Your task to perform on an android device: turn smart compose on in the gmail app Image 0: 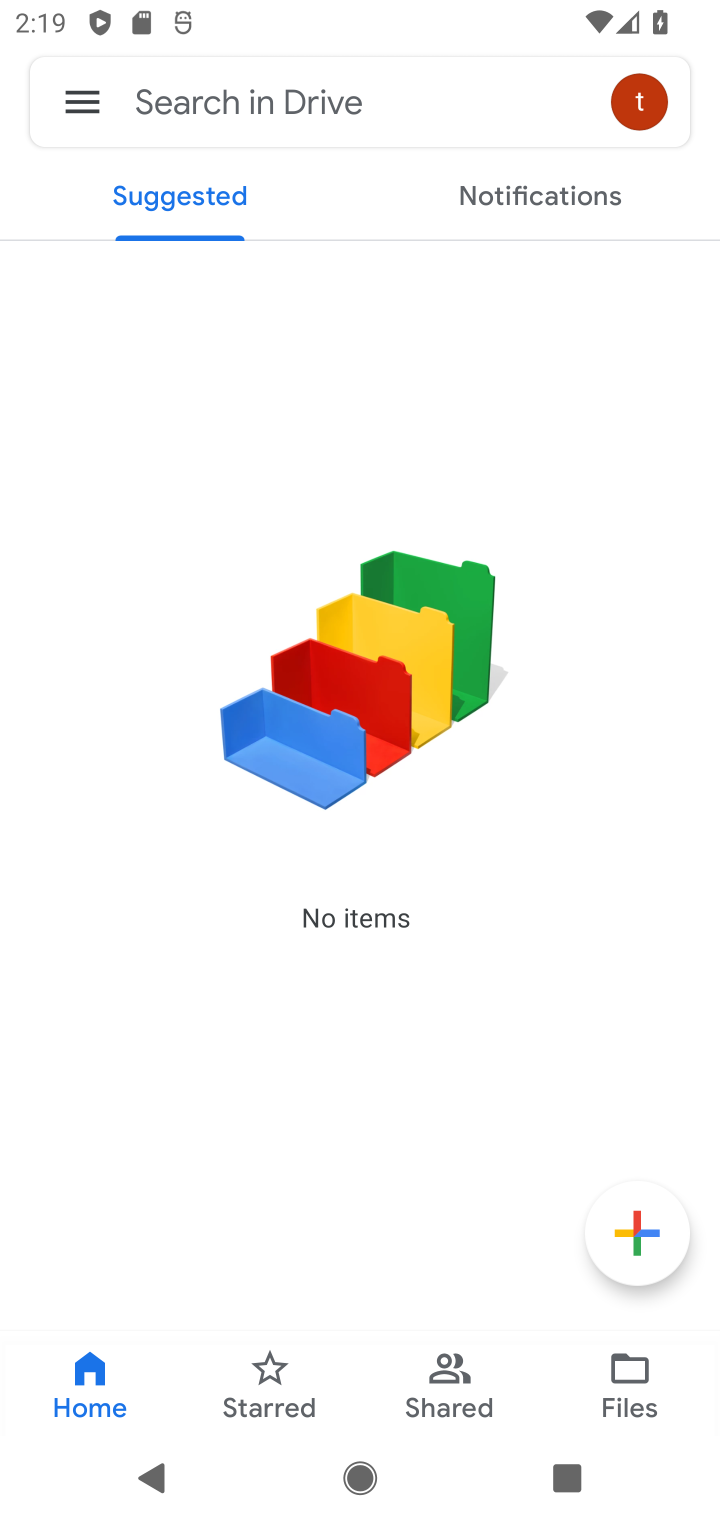
Step 0: press home button
Your task to perform on an android device: turn smart compose on in the gmail app Image 1: 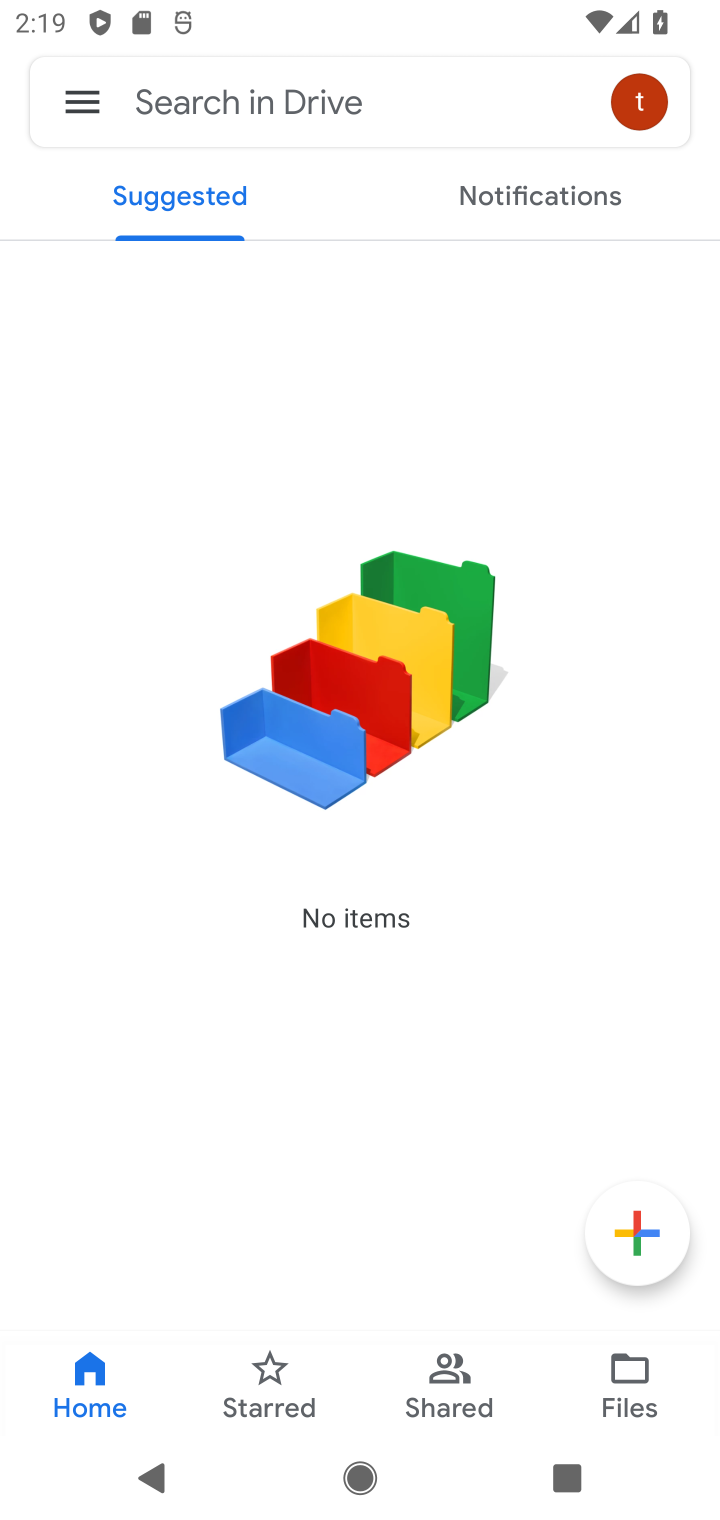
Step 1: drag from (585, 1302) to (346, 146)
Your task to perform on an android device: turn smart compose on in the gmail app Image 2: 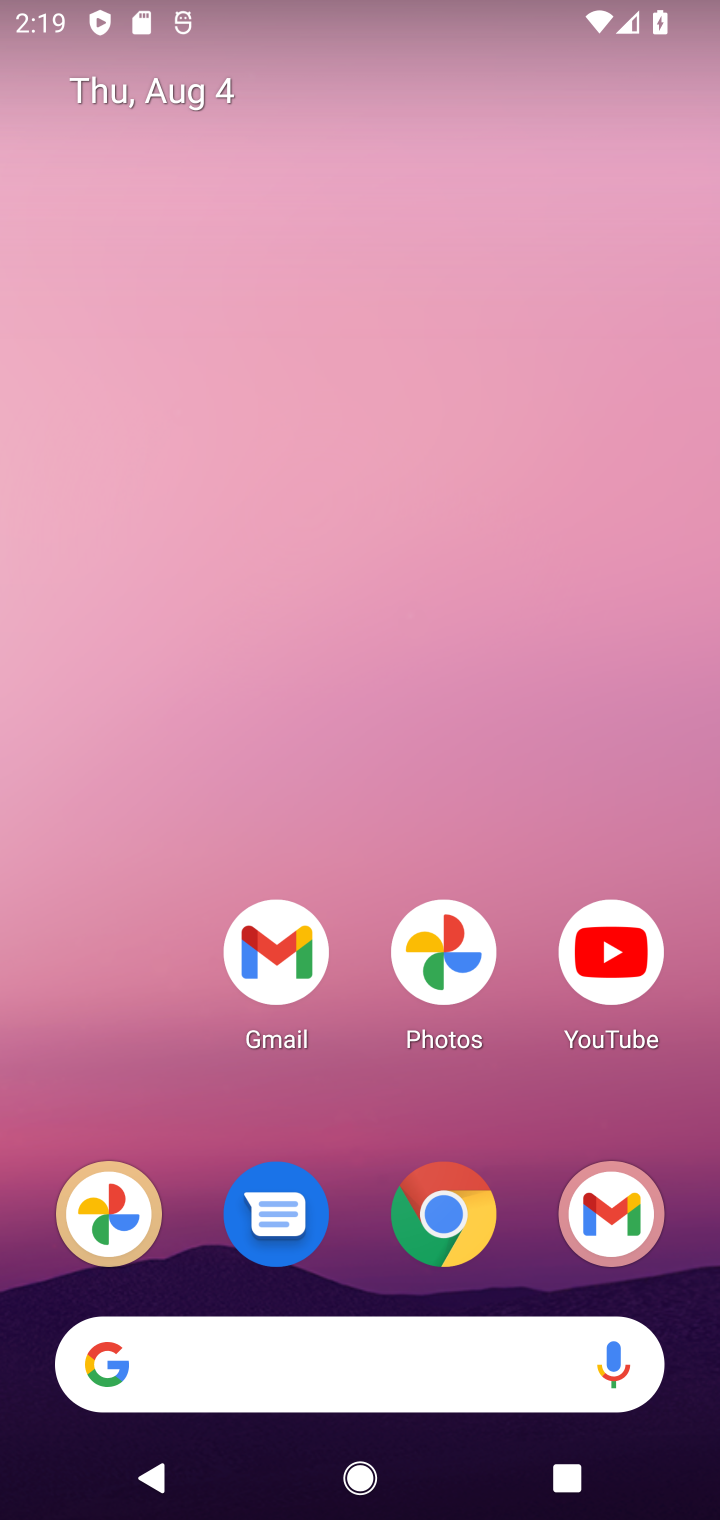
Step 2: drag from (74, 969) to (188, 1)
Your task to perform on an android device: turn smart compose on in the gmail app Image 3: 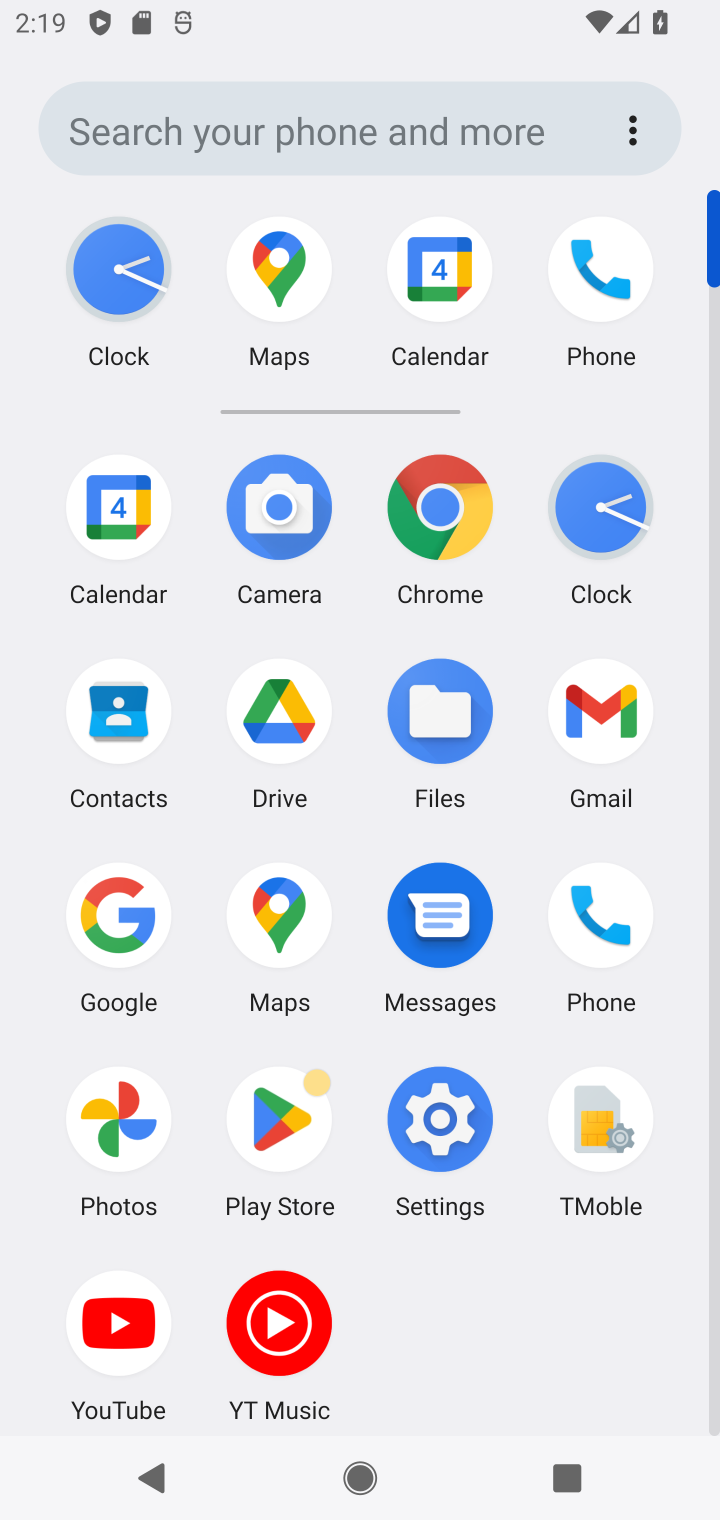
Step 3: click (597, 713)
Your task to perform on an android device: turn smart compose on in the gmail app Image 4: 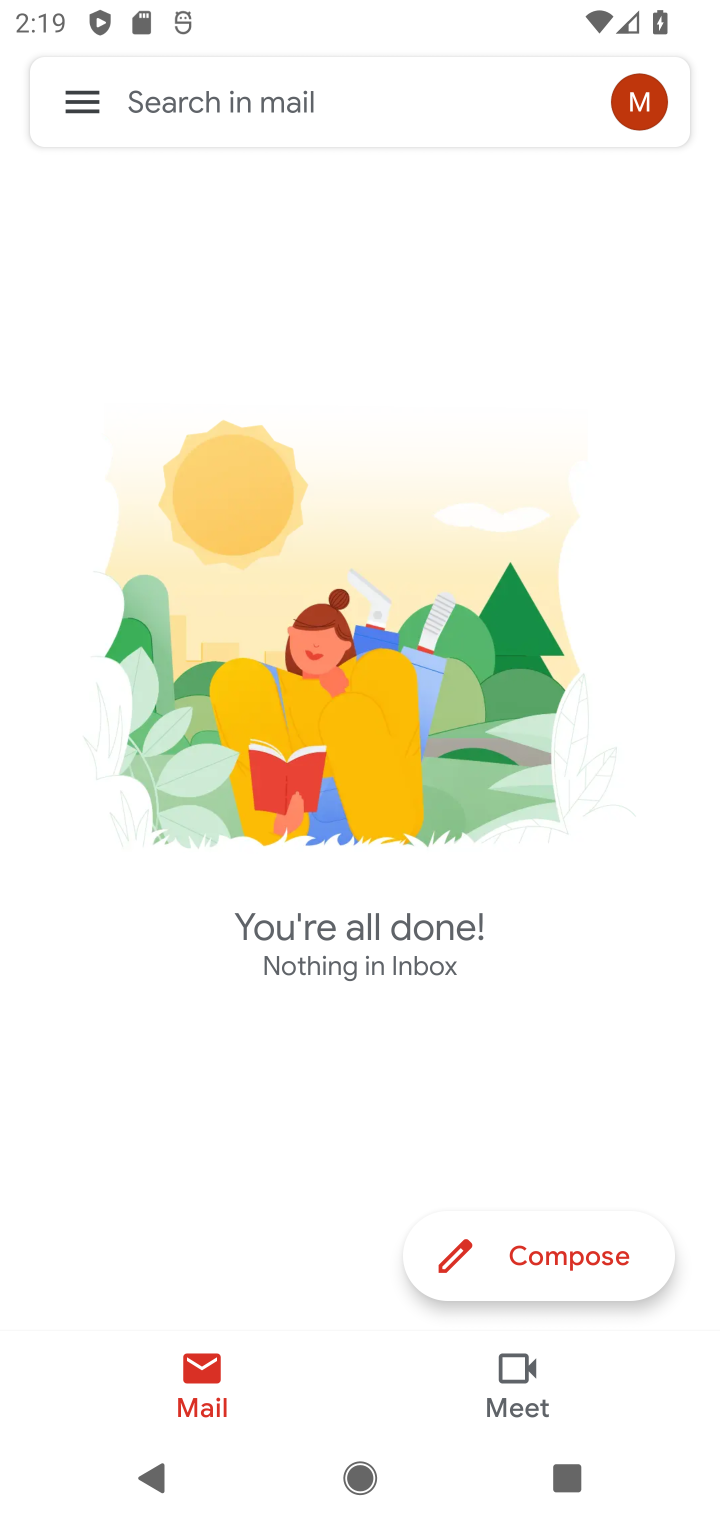
Step 4: click (91, 92)
Your task to perform on an android device: turn smart compose on in the gmail app Image 5: 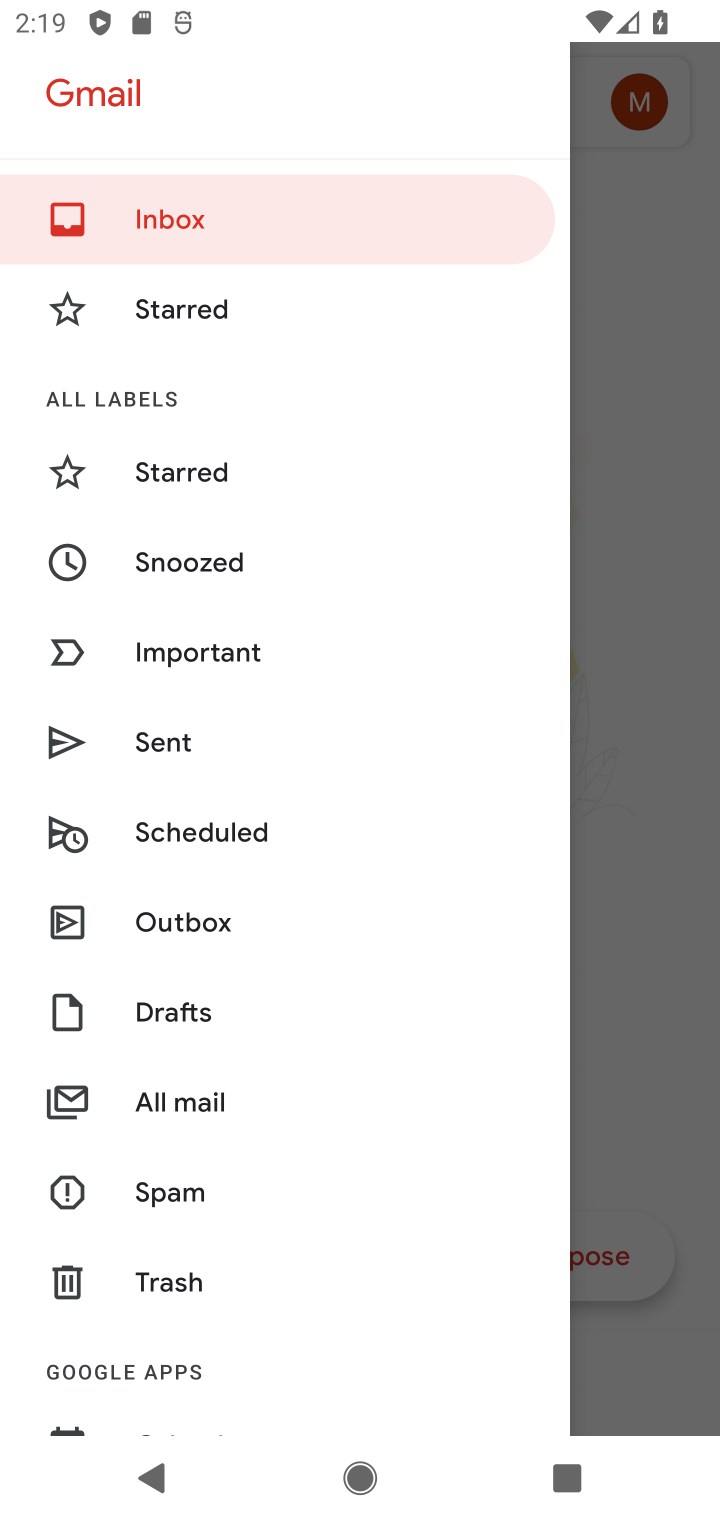
Step 5: drag from (151, 1303) to (262, 55)
Your task to perform on an android device: turn smart compose on in the gmail app Image 6: 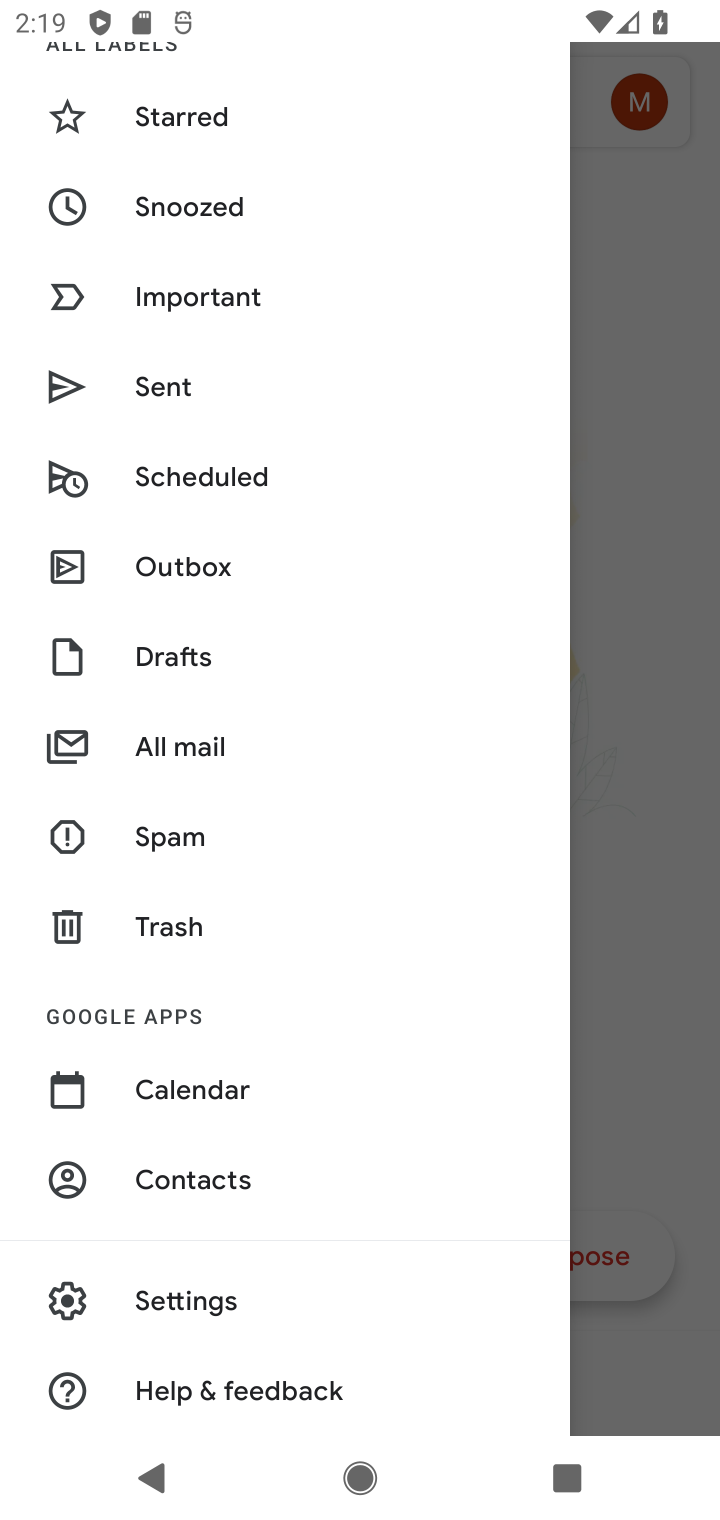
Step 6: click (240, 1308)
Your task to perform on an android device: turn smart compose on in the gmail app Image 7: 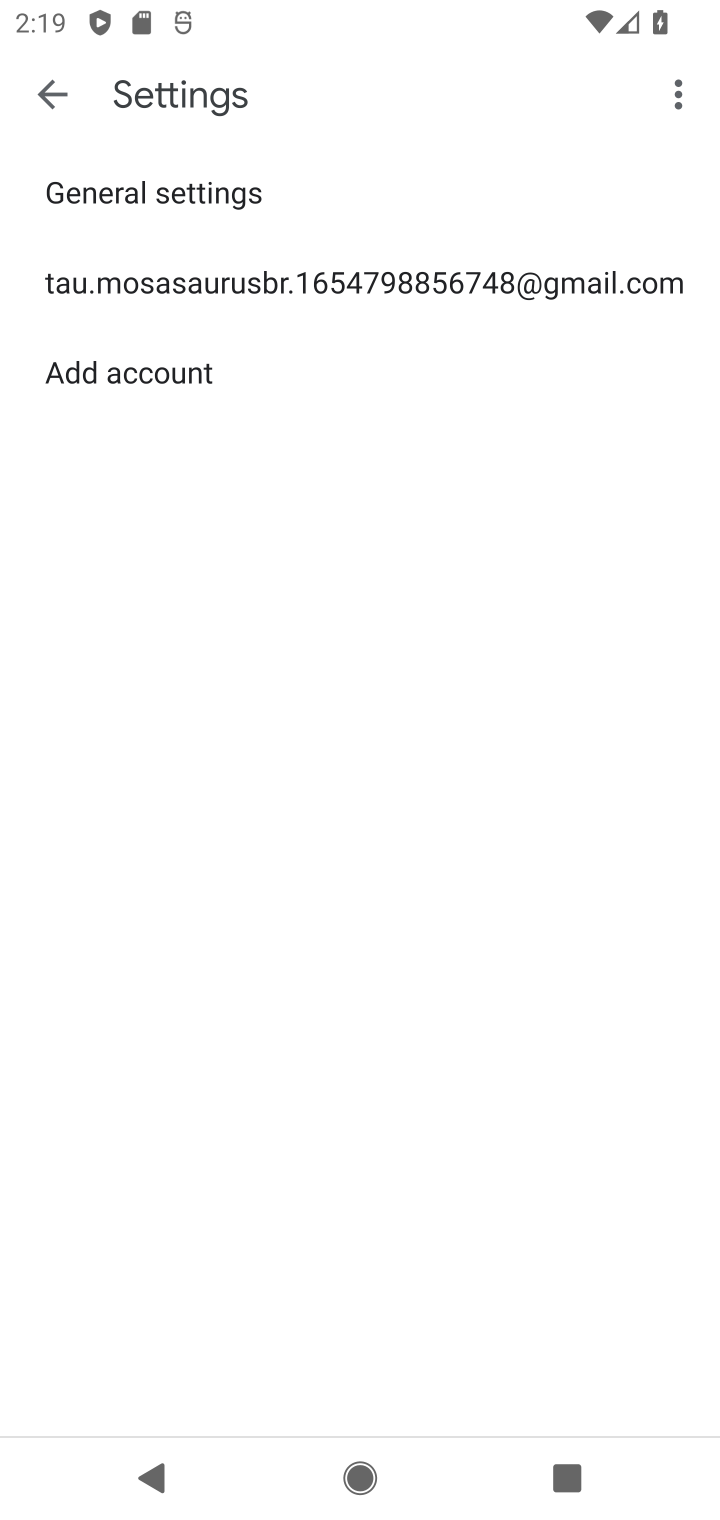
Step 7: click (307, 263)
Your task to perform on an android device: turn smart compose on in the gmail app Image 8: 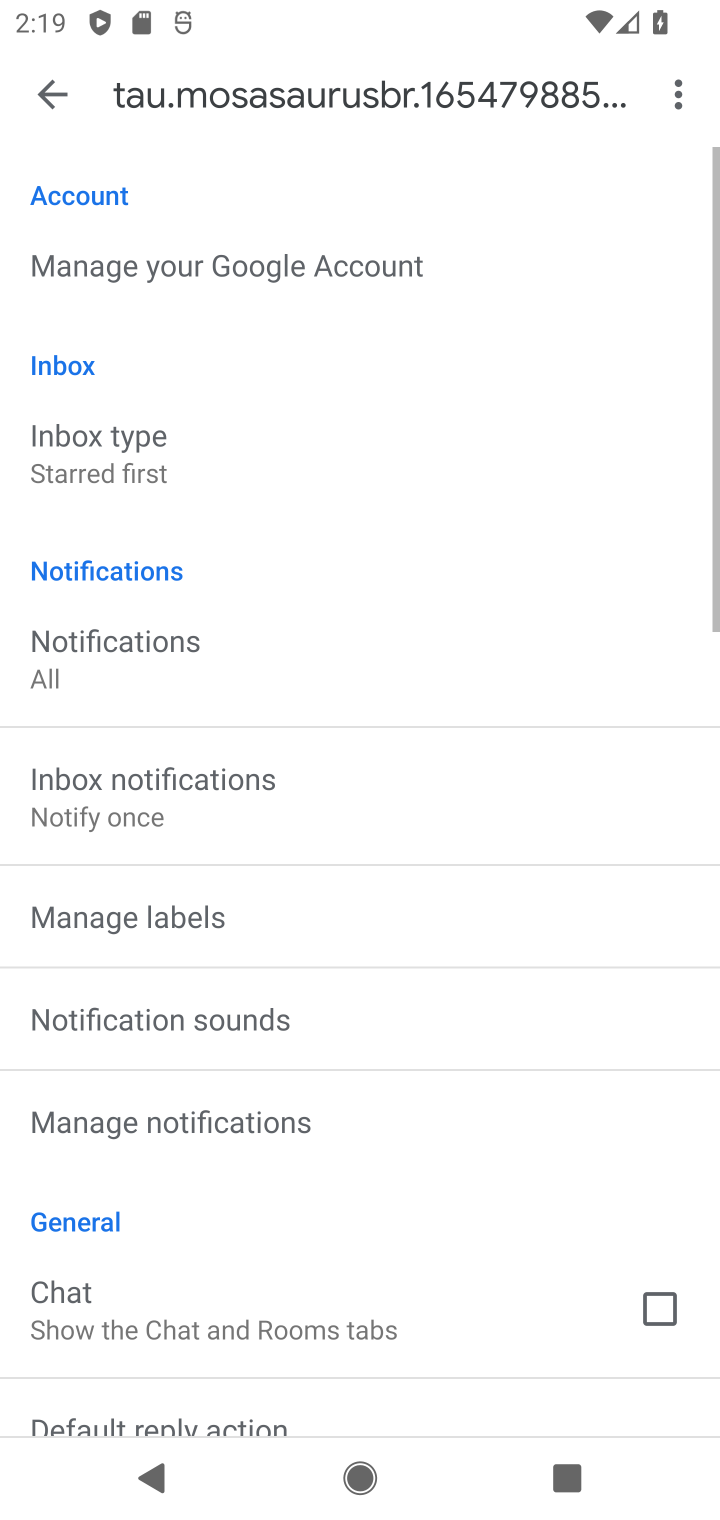
Step 8: task complete